Your task to perform on an android device: turn on the 12-hour format for clock Image 0: 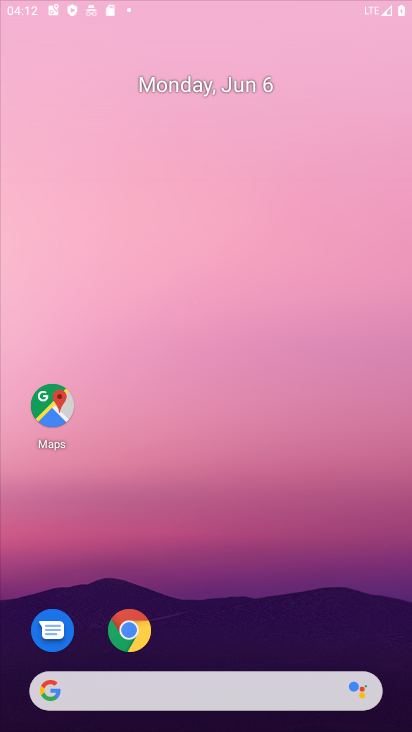
Step 0: press home button
Your task to perform on an android device: turn on the 12-hour format for clock Image 1: 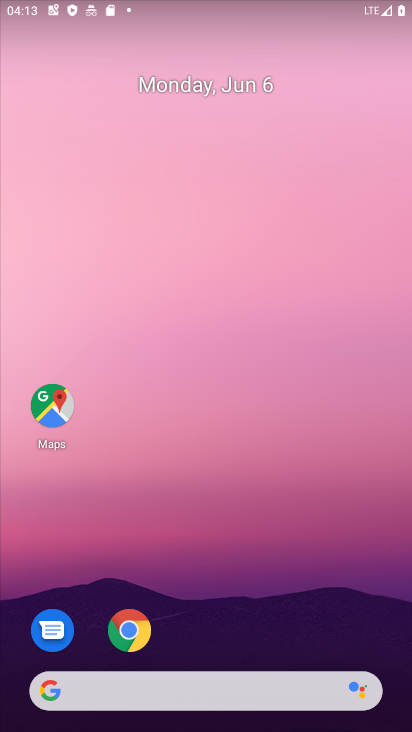
Step 1: drag from (167, 691) to (282, 83)
Your task to perform on an android device: turn on the 12-hour format for clock Image 2: 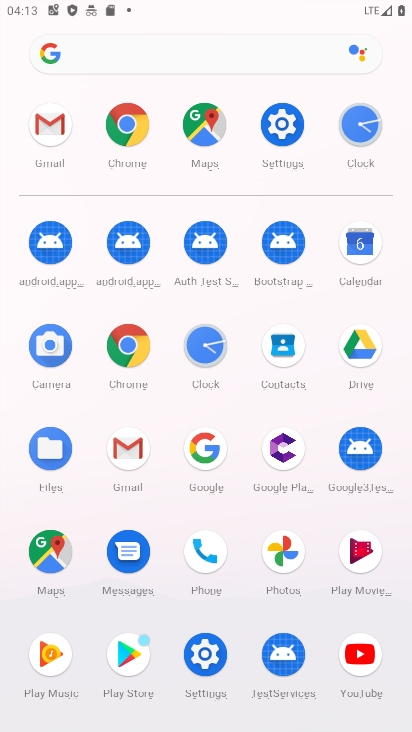
Step 2: click (204, 357)
Your task to perform on an android device: turn on the 12-hour format for clock Image 3: 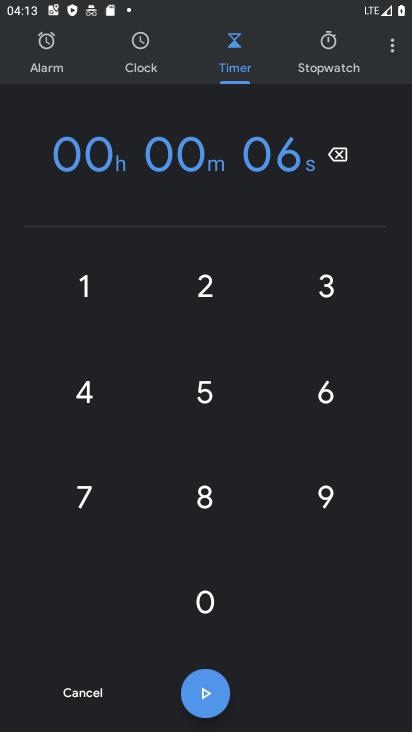
Step 3: click (395, 48)
Your task to perform on an android device: turn on the 12-hour format for clock Image 4: 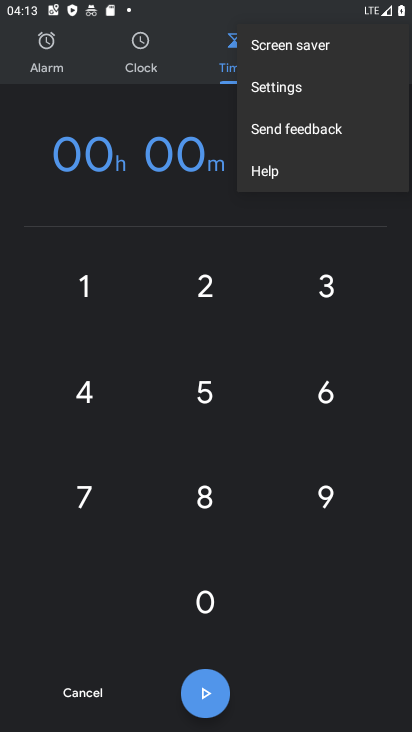
Step 4: click (247, 89)
Your task to perform on an android device: turn on the 12-hour format for clock Image 5: 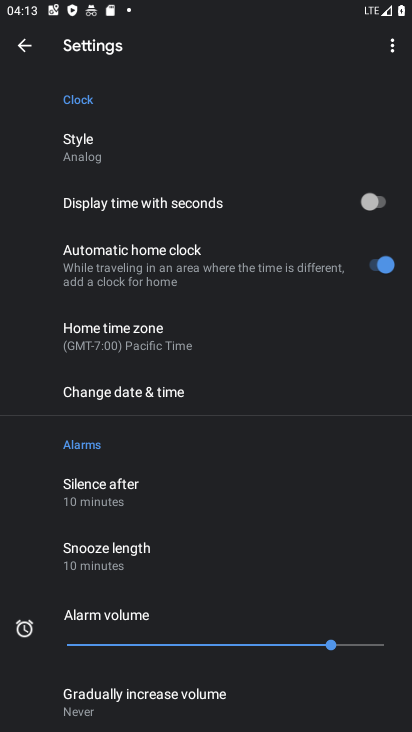
Step 5: click (162, 365)
Your task to perform on an android device: turn on the 12-hour format for clock Image 6: 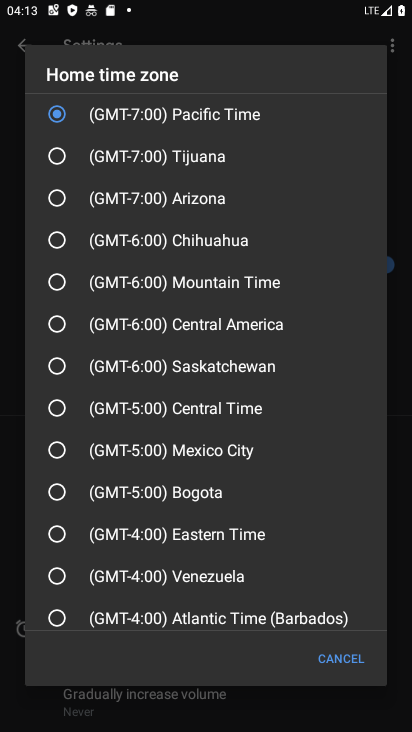
Step 6: click (395, 327)
Your task to perform on an android device: turn on the 12-hour format for clock Image 7: 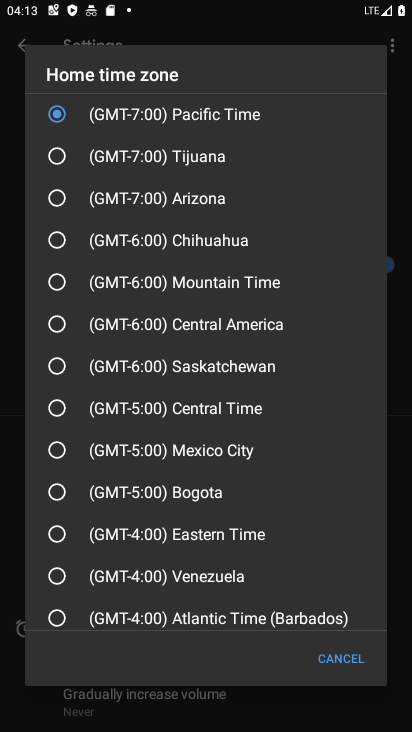
Step 7: click (334, 659)
Your task to perform on an android device: turn on the 12-hour format for clock Image 8: 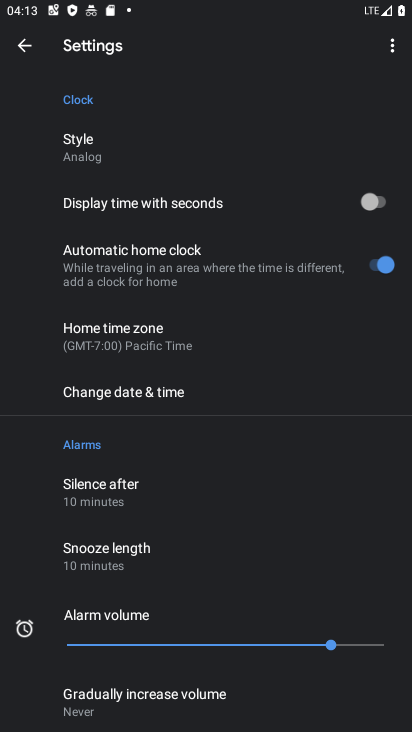
Step 8: click (125, 392)
Your task to perform on an android device: turn on the 12-hour format for clock Image 9: 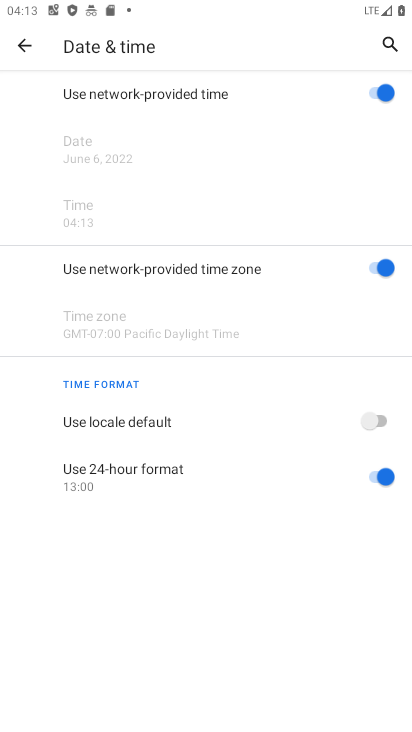
Step 9: task complete